Your task to perform on an android device: set the timer Image 0: 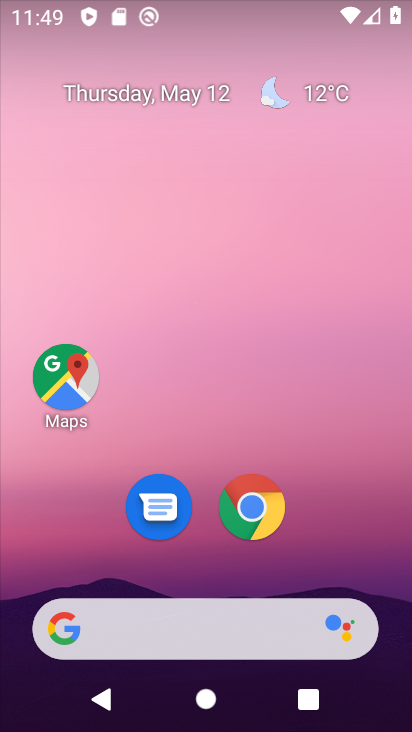
Step 0: drag from (320, 509) to (331, 141)
Your task to perform on an android device: set the timer Image 1: 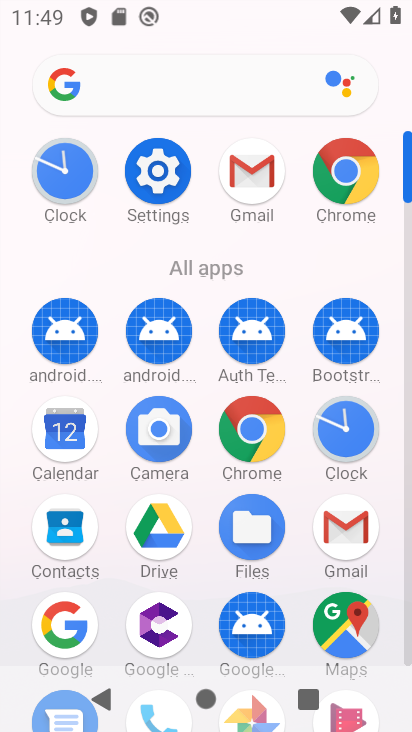
Step 1: click (352, 452)
Your task to perform on an android device: set the timer Image 2: 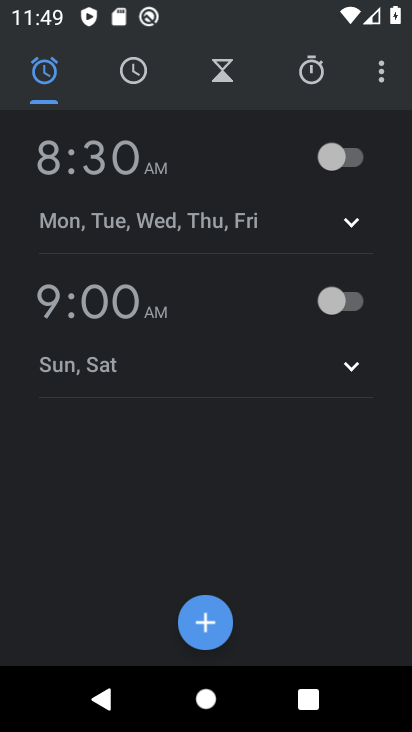
Step 2: click (223, 98)
Your task to perform on an android device: set the timer Image 3: 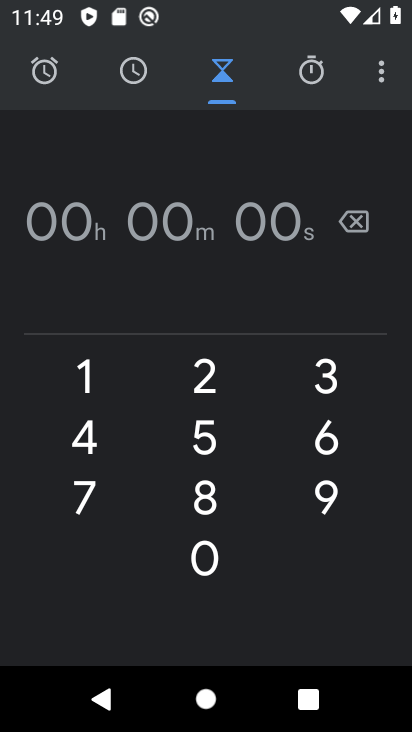
Step 3: click (214, 373)
Your task to perform on an android device: set the timer Image 4: 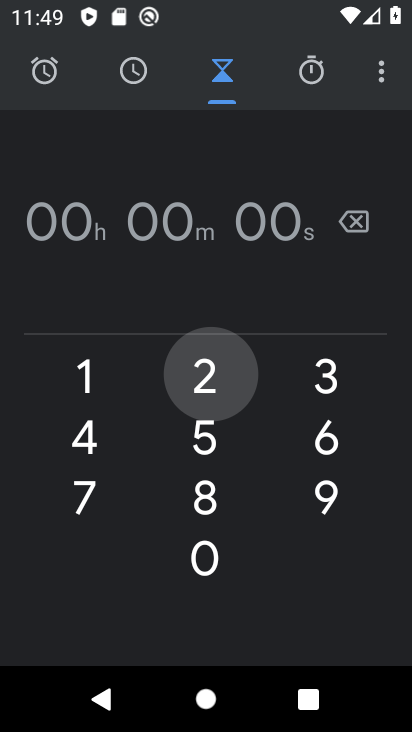
Step 4: click (219, 439)
Your task to perform on an android device: set the timer Image 5: 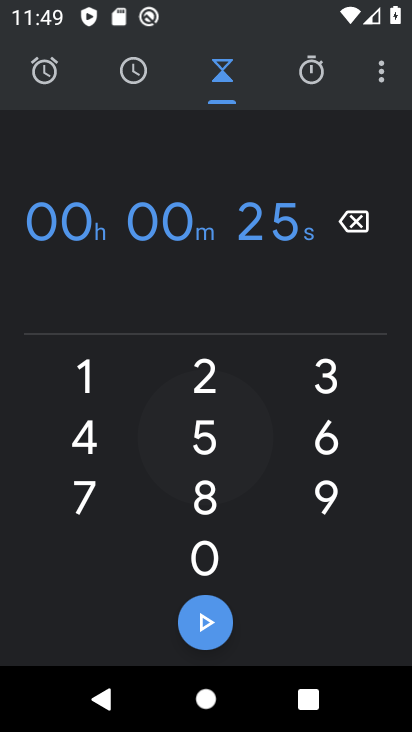
Step 5: click (212, 511)
Your task to perform on an android device: set the timer Image 6: 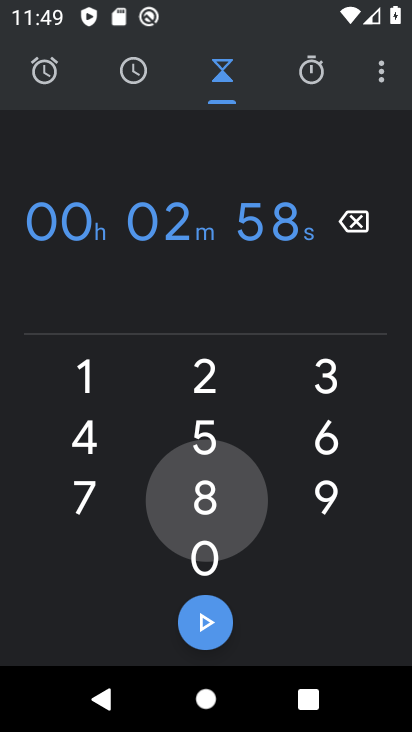
Step 6: click (215, 542)
Your task to perform on an android device: set the timer Image 7: 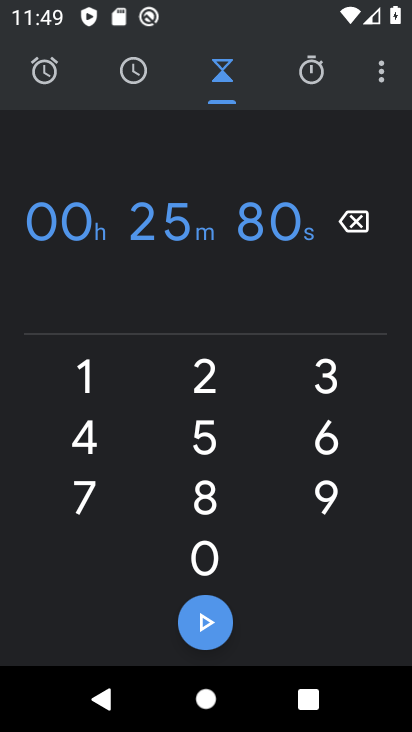
Step 7: click (215, 618)
Your task to perform on an android device: set the timer Image 8: 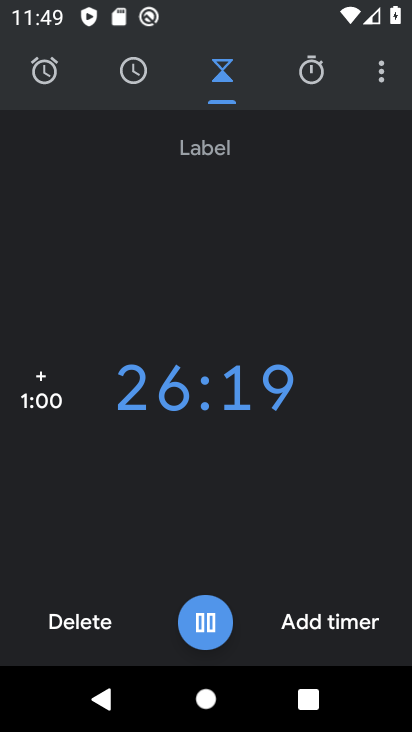
Step 8: task complete